Your task to perform on an android device: What's the weather today? Image 0: 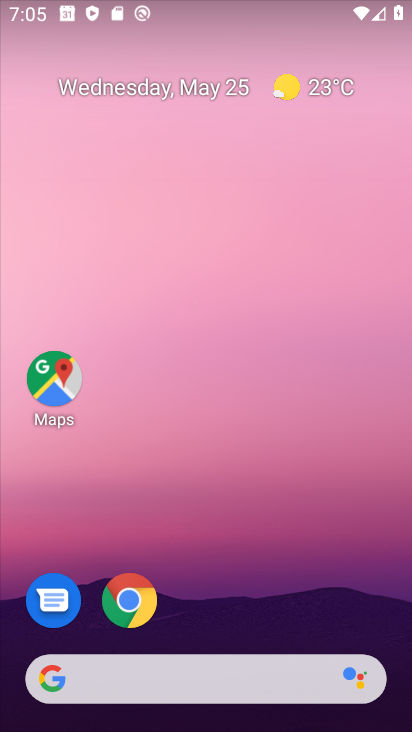
Step 0: drag from (268, 600) to (211, 77)
Your task to perform on an android device: What's the weather today? Image 1: 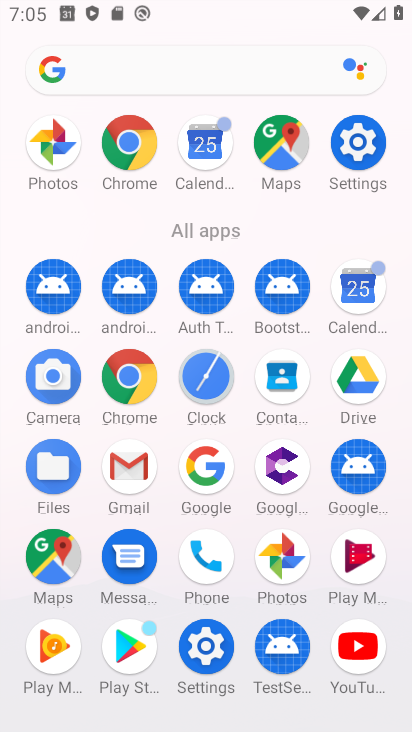
Step 1: click (201, 465)
Your task to perform on an android device: What's the weather today? Image 2: 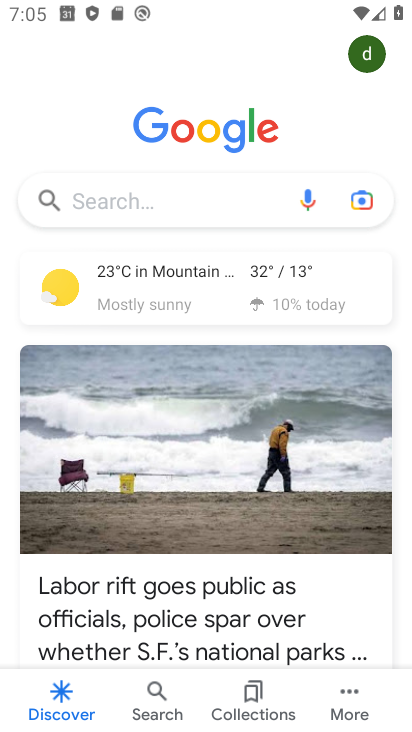
Step 2: click (201, 276)
Your task to perform on an android device: What's the weather today? Image 3: 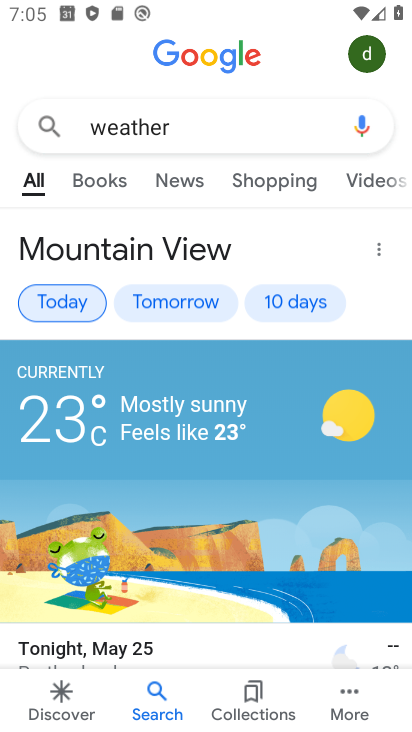
Step 3: task complete